Your task to perform on an android device: Open sound settings Image 0: 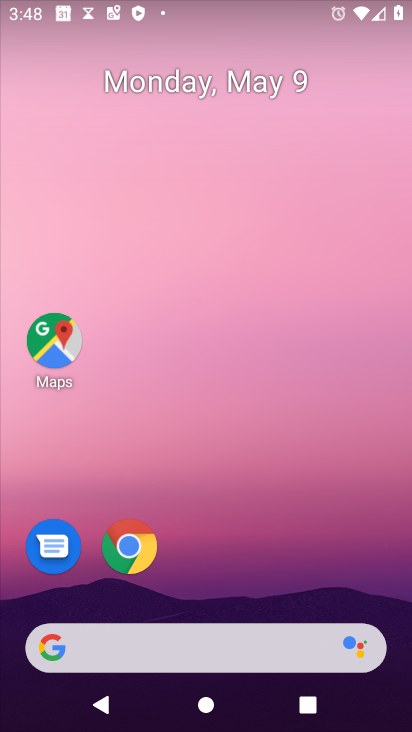
Step 0: drag from (300, 576) to (205, 145)
Your task to perform on an android device: Open sound settings Image 1: 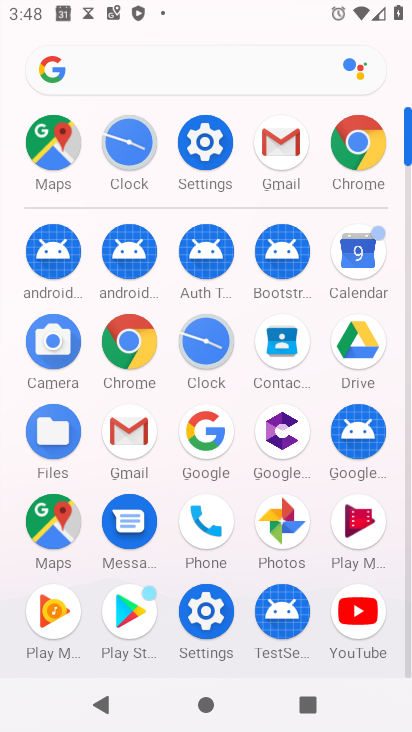
Step 1: click (199, 135)
Your task to perform on an android device: Open sound settings Image 2: 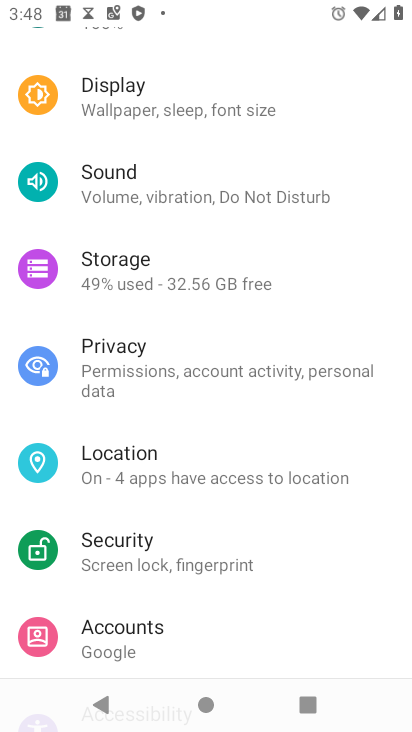
Step 2: drag from (184, 587) to (151, 259)
Your task to perform on an android device: Open sound settings Image 3: 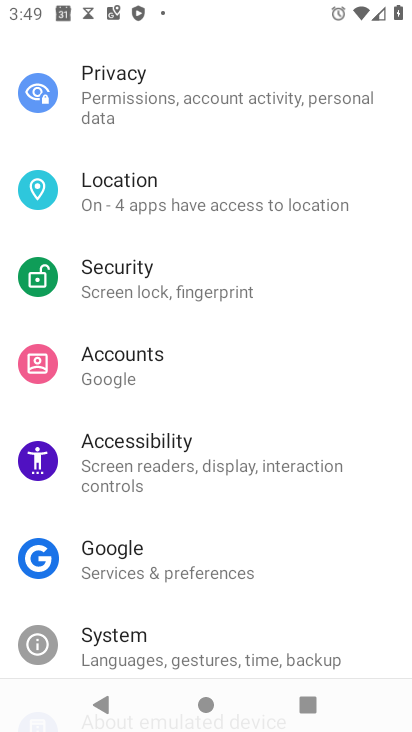
Step 3: drag from (265, 539) to (237, 247)
Your task to perform on an android device: Open sound settings Image 4: 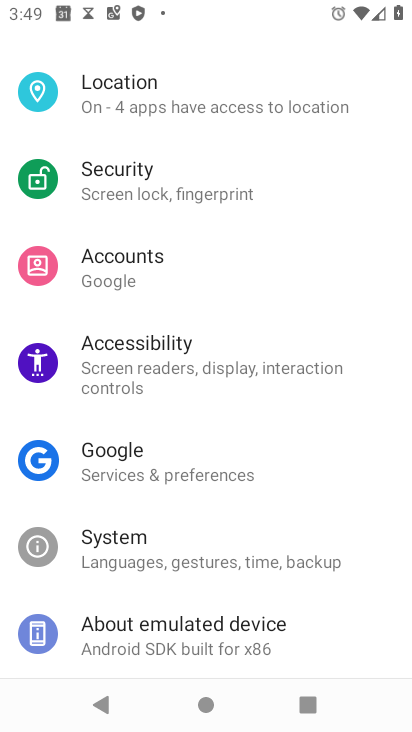
Step 4: drag from (237, 244) to (277, 556)
Your task to perform on an android device: Open sound settings Image 5: 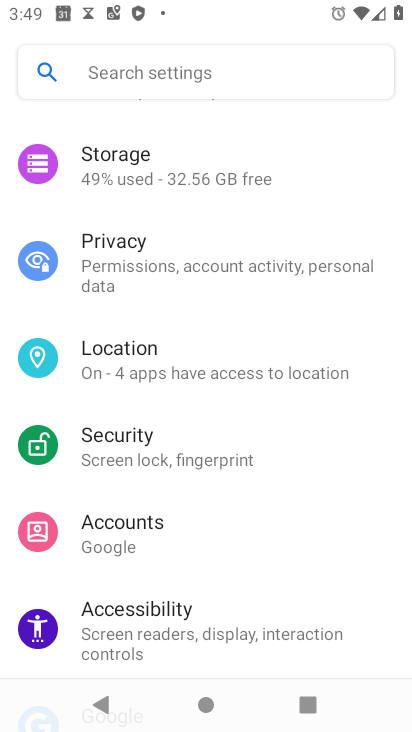
Step 5: drag from (165, 210) to (201, 506)
Your task to perform on an android device: Open sound settings Image 6: 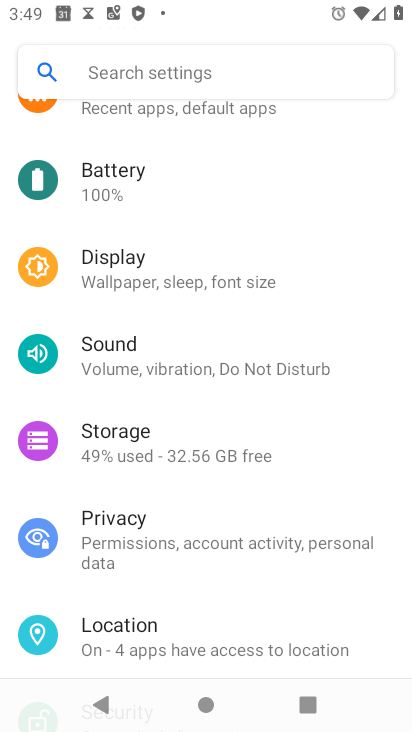
Step 6: click (130, 361)
Your task to perform on an android device: Open sound settings Image 7: 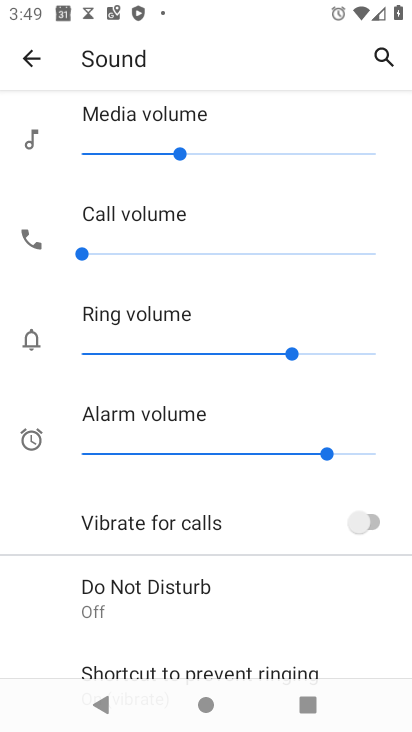
Step 7: task complete